Your task to perform on an android device: Open Youtube and go to "Your channel" Image 0: 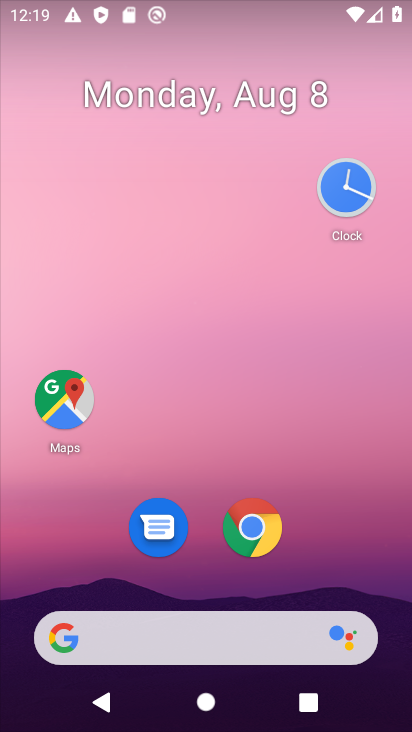
Step 0: drag from (231, 465) to (202, 106)
Your task to perform on an android device: Open Youtube and go to "Your channel" Image 1: 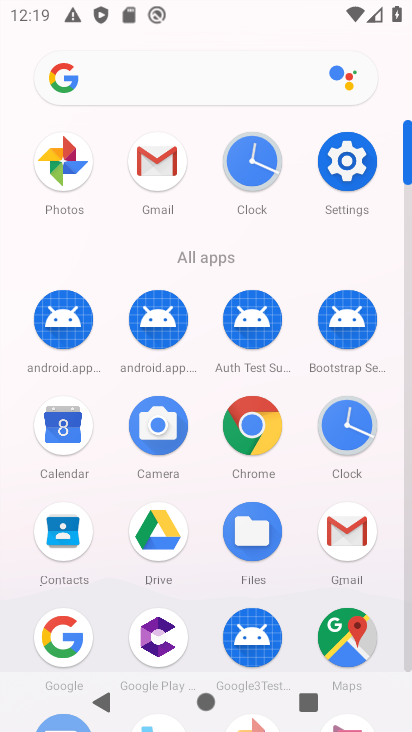
Step 1: drag from (297, 577) to (286, 283)
Your task to perform on an android device: Open Youtube and go to "Your channel" Image 2: 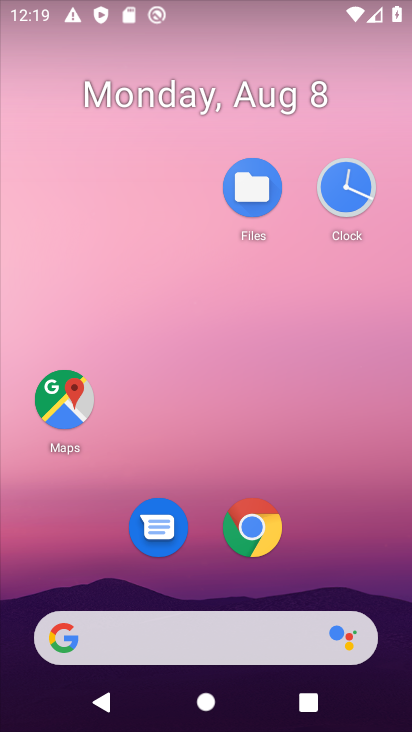
Step 2: click (286, 382)
Your task to perform on an android device: Open Youtube and go to "Your channel" Image 3: 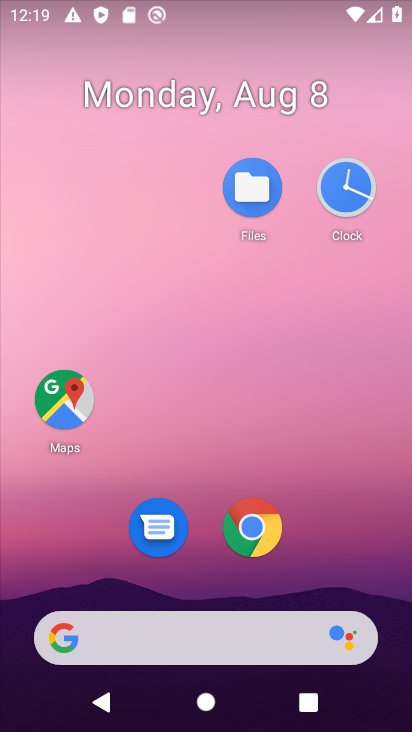
Step 3: drag from (330, 523) to (311, 229)
Your task to perform on an android device: Open Youtube and go to "Your channel" Image 4: 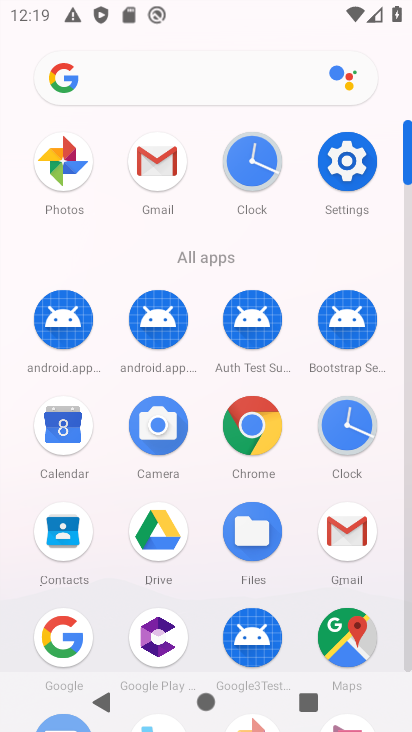
Step 4: drag from (295, 597) to (289, 359)
Your task to perform on an android device: Open Youtube and go to "Your channel" Image 5: 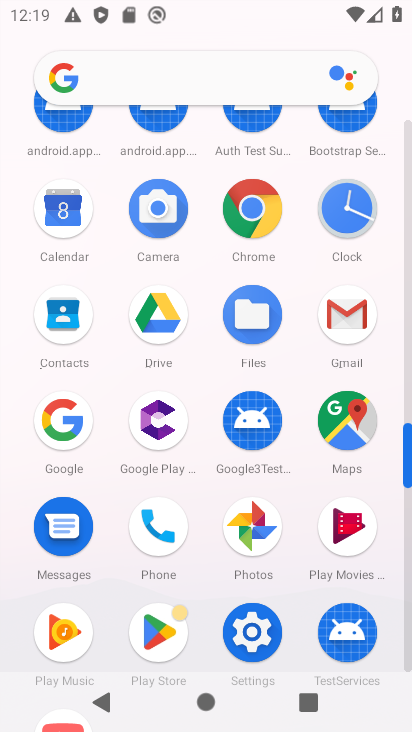
Step 5: drag from (290, 559) to (290, 368)
Your task to perform on an android device: Open Youtube and go to "Your channel" Image 6: 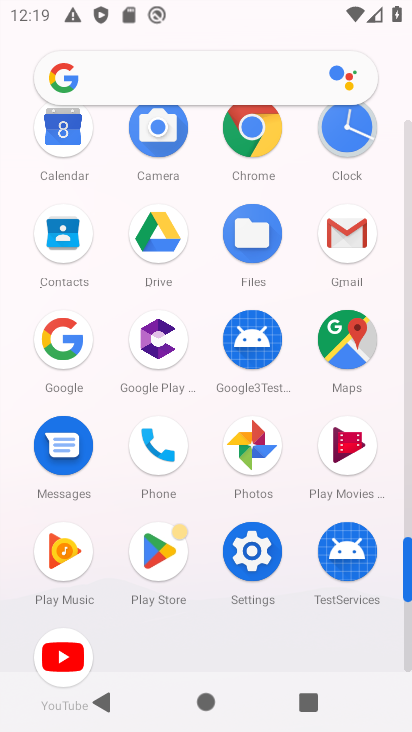
Step 6: click (70, 662)
Your task to perform on an android device: Open Youtube and go to "Your channel" Image 7: 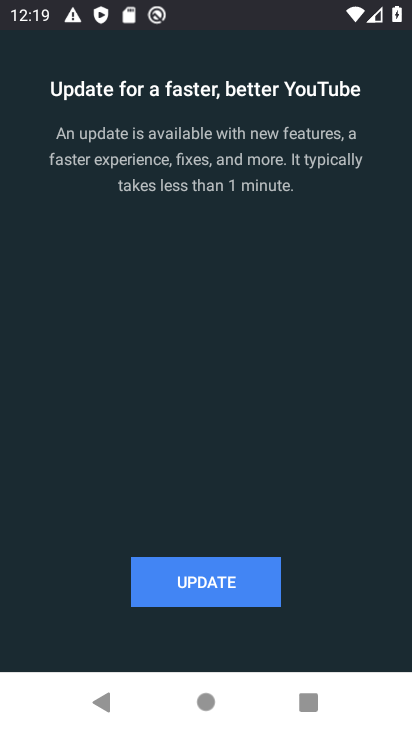
Step 7: task complete